Your task to perform on an android device: What's the weather going to be this weekend? Image 0: 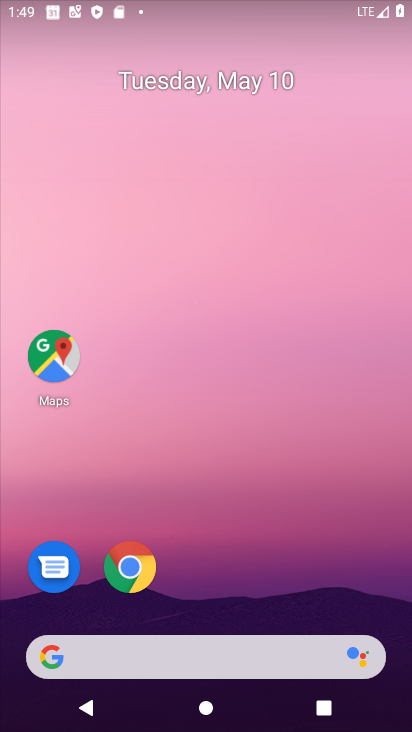
Step 0: click (255, 653)
Your task to perform on an android device: What's the weather going to be this weekend? Image 1: 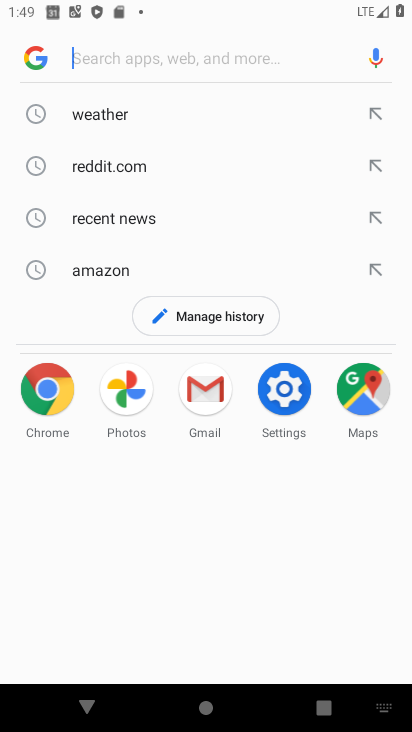
Step 1: type "weather weekend?"
Your task to perform on an android device: What's the weather going to be this weekend? Image 2: 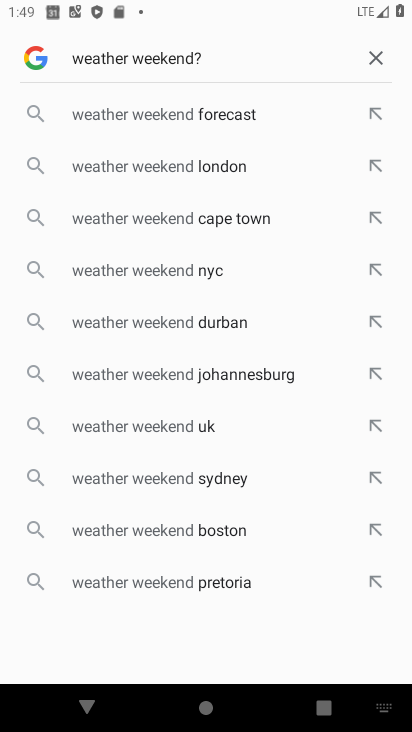
Step 2: click (179, 127)
Your task to perform on an android device: What's the weather going to be this weekend? Image 3: 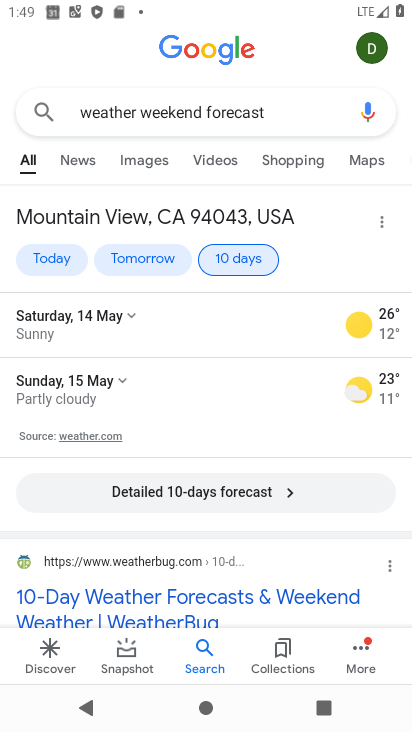
Step 3: task complete